Your task to perform on an android device: Open calendar and show me the first week of next month Image 0: 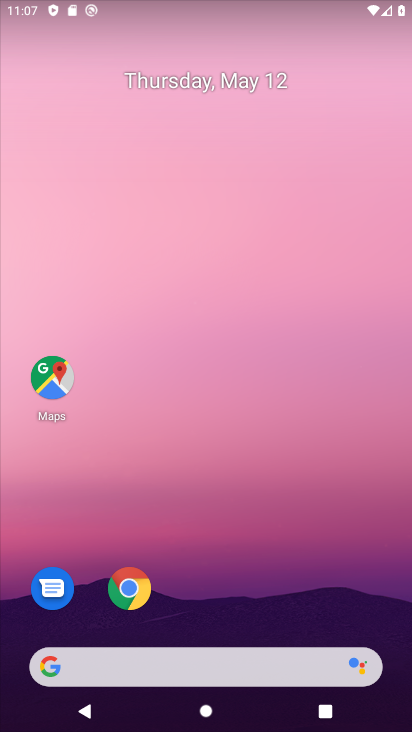
Step 0: drag from (206, 616) to (280, 96)
Your task to perform on an android device: Open calendar and show me the first week of next month Image 1: 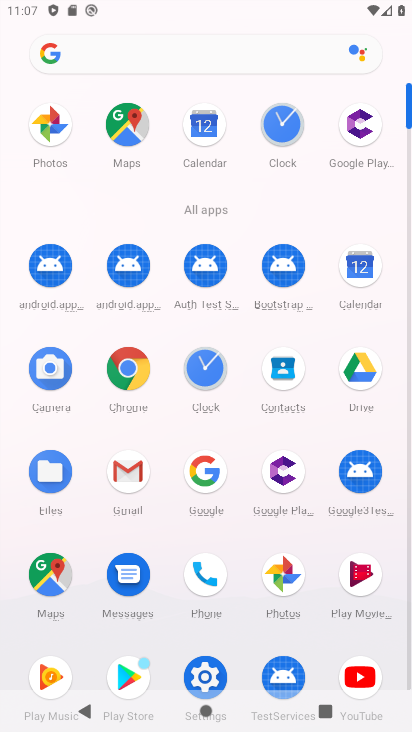
Step 1: click (351, 267)
Your task to perform on an android device: Open calendar and show me the first week of next month Image 2: 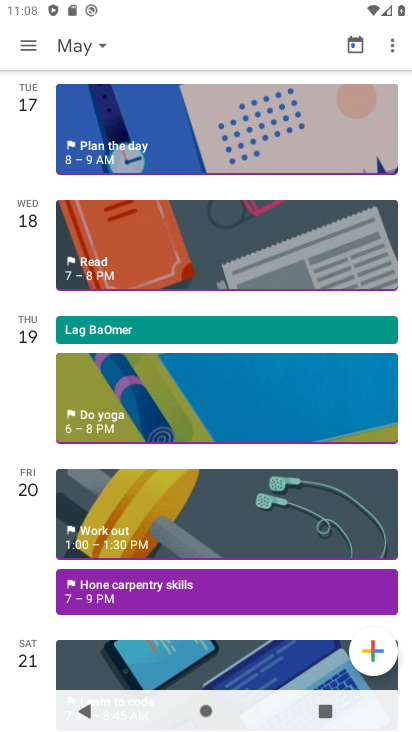
Step 2: click (89, 39)
Your task to perform on an android device: Open calendar and show me the first week of next month Image 3: 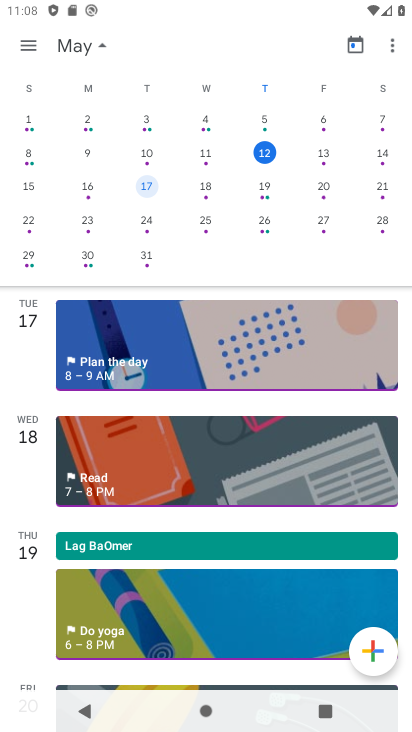
Step 3: drag from (321, 197) to (40, 252)
Your task to perform on an android device: Open calendar and show me the first week of next month Image 4: 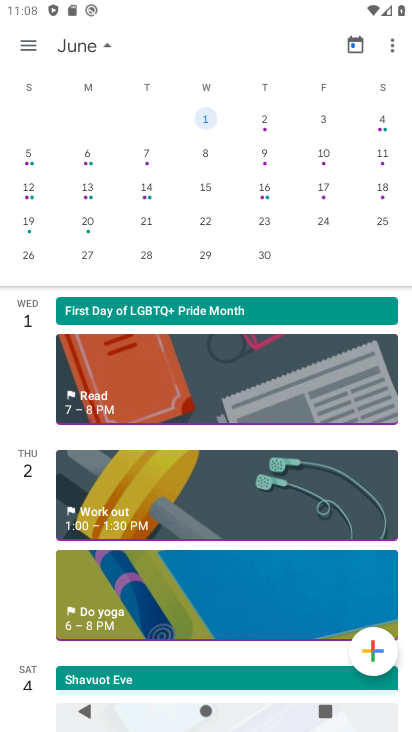
Step 4: click (261, 123)
Your task to perform on an android device: Open calendar and show me the first week of next month Image 5: 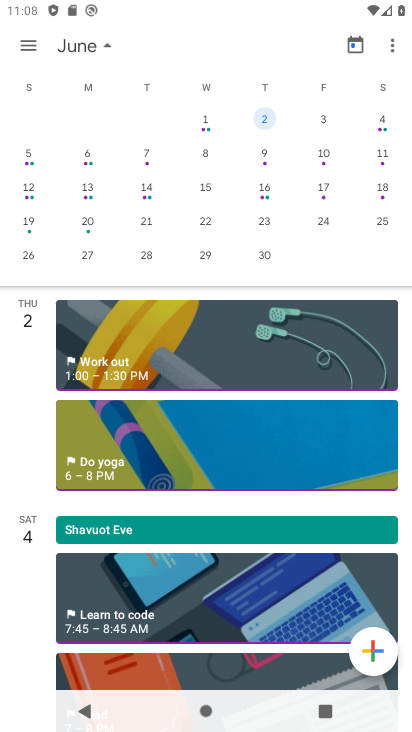
Step 5: task complete